Your task to perform on an android device: Go to sound settings Image 0: 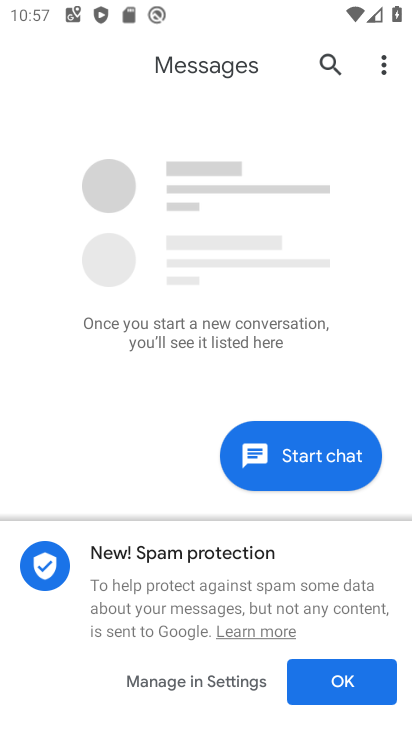
Step 0: click (334, 681)
Your task to perform on an android device: Go to sound settings Image 1: 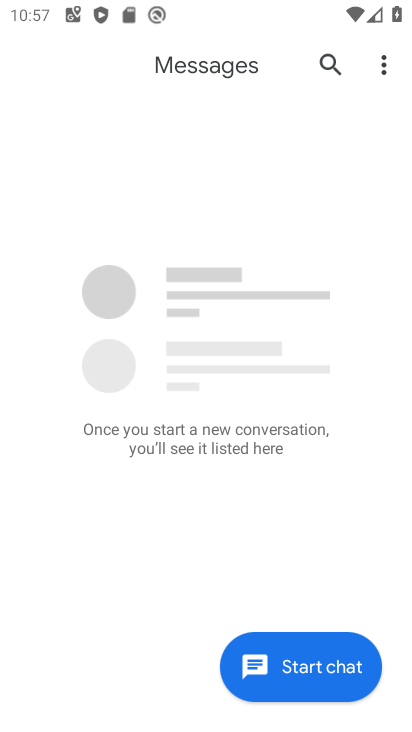
Step 1: click (326, 665)
Your task to perform on an android device: Go to sound settings Image 2: 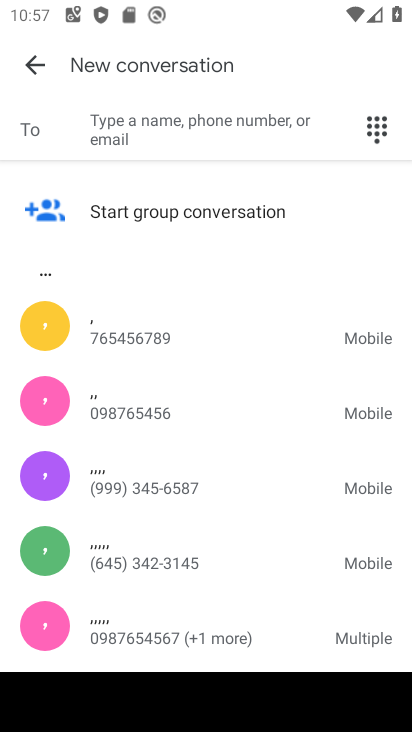
Step 2: click (27, 79)
Your task to perform on an android device: Go to sound settings Image 3: 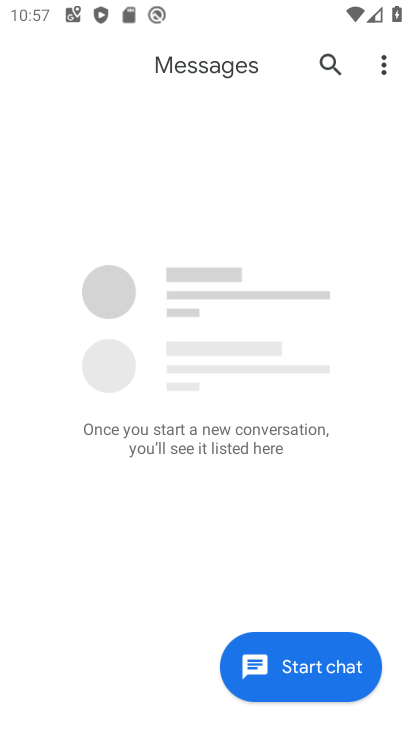
Step 3: click (302, 655)
Your task to perform on an android device: Go to sound settings Image 4: 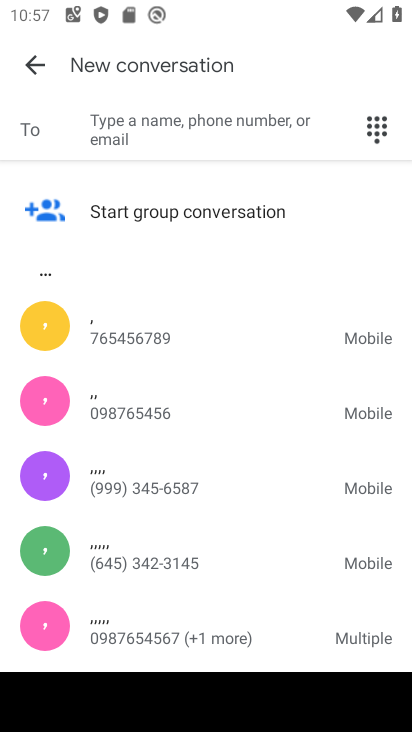
Step 4: click (29, 62)
Your task to perform on an android device: Go to sound settings Image 5: 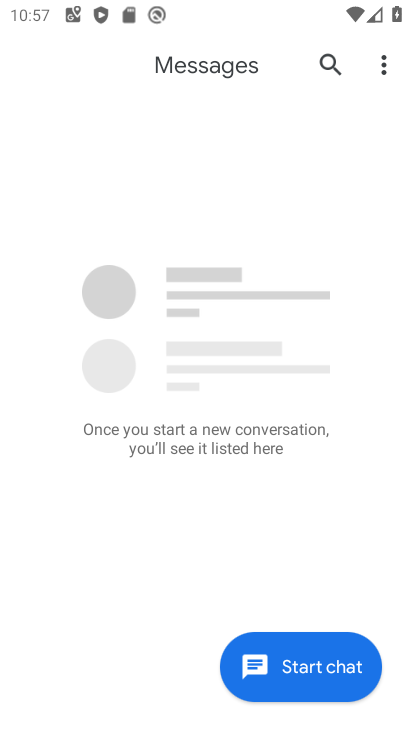
Step 5: press home button
Your task to perform on an android device: Go to sound settings Image 6: 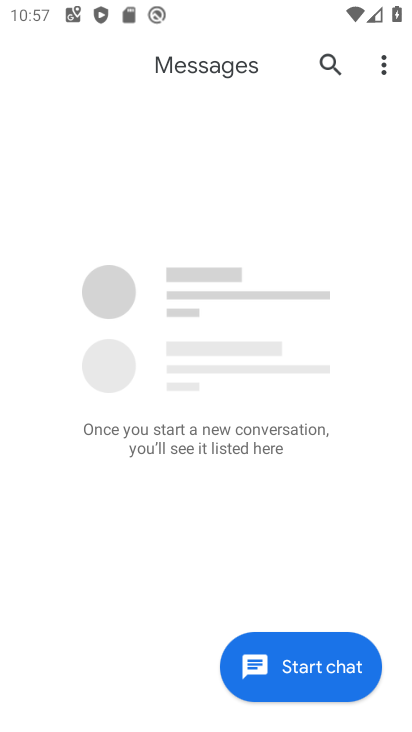
Step 6: press home button
Your task to perform on an android device: Go to sound settings Image 7: 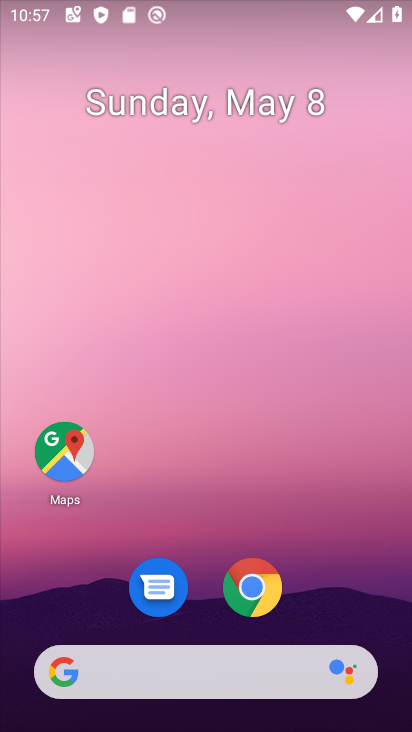
Step 7: drag from (369, 601) to (148, 50)
Your task to perform on an android device: Go to sound settings Image 8: 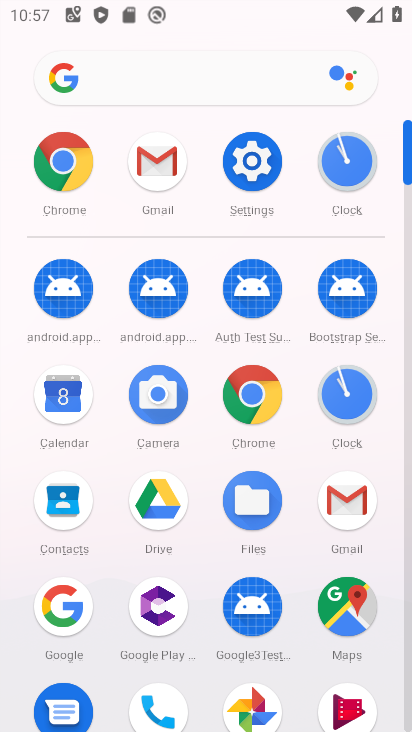
Step 8: click (238, 169)
Your task to perform on an android device: Go to sound settings Image 9: 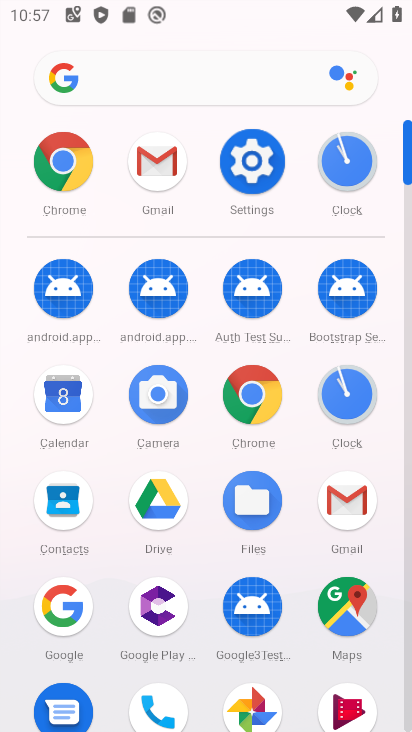
Step 9: click (239, 194)
Your task to perform on an android device: Go to sound settings Image 10: 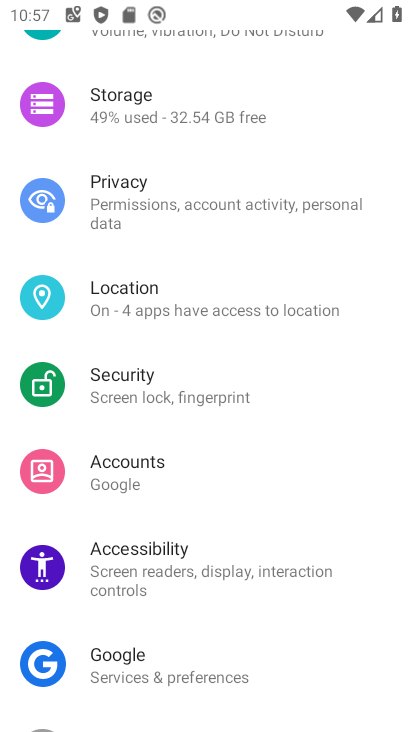
Step 10: click (113, 97)
Your task to perform on an android device: Go to sound settings Image 11: 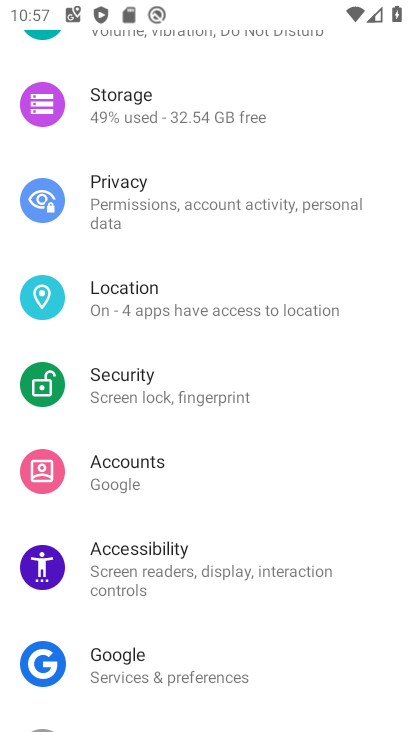
Step 11: drag from (165, 451) to (165, 47)
Your task to perform on an android device: Go to sound settings Image 12: 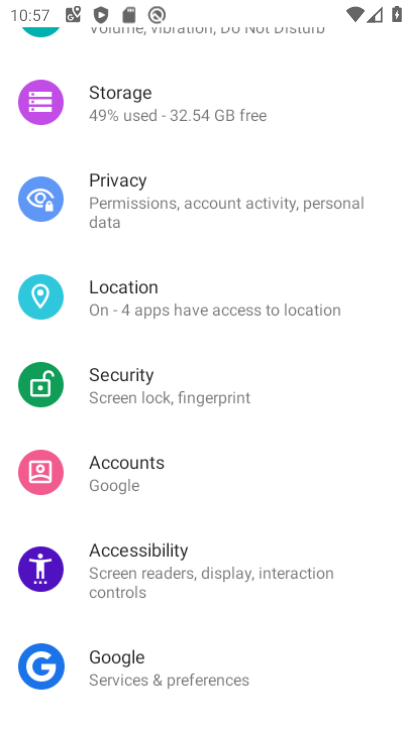
Step 12: drag from (160, 235) to (157, 468)
Your task to perform on an android device: Go to sound settings Image 13: 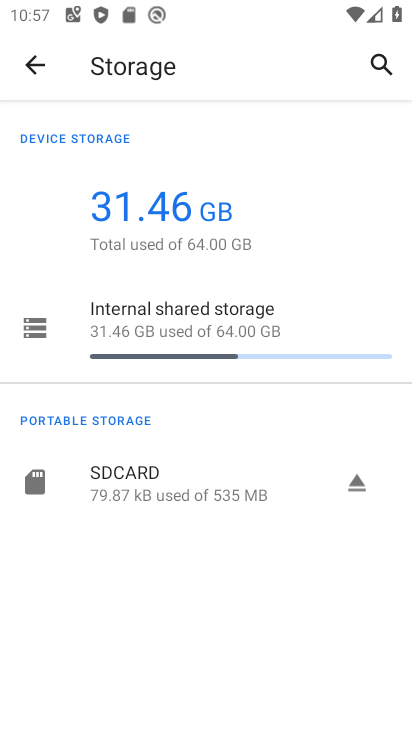
Step 13: drag from (141, 213) to (151, 550)
Your task to perform on an android device: Go to sound settings Image 14: 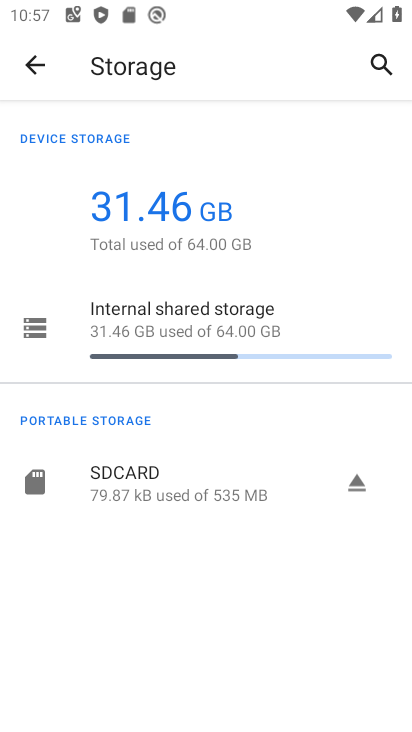
Step 14: click (35, 58)
Your task to perform on an android device: Go to sound settings Image 15: 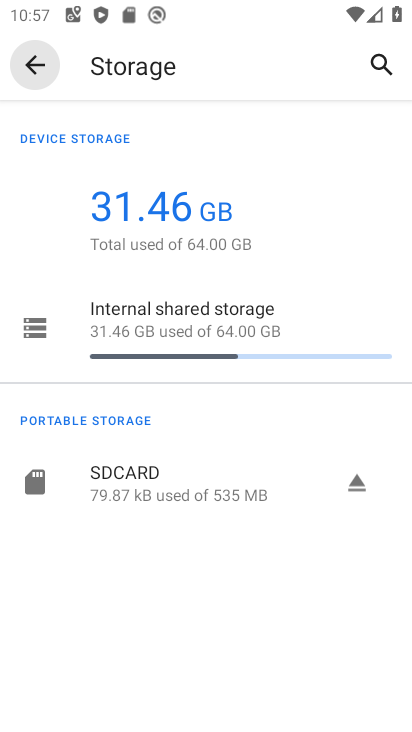
Step 15: click (35, 58)
Your task to perform on an android device: Go to sound settings Image 16: 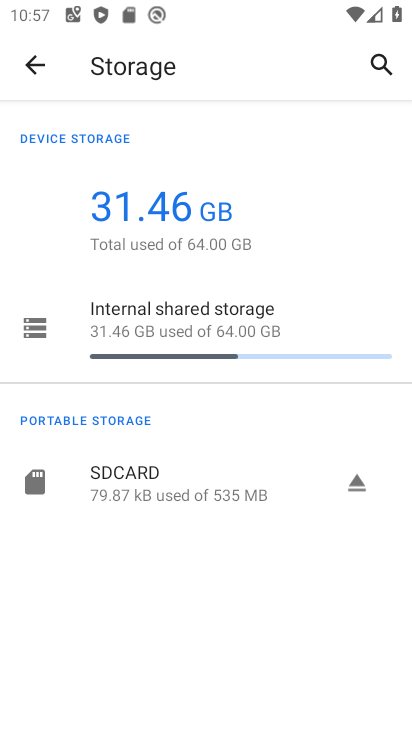
Step 16: click (20, 63)
Your task to perform on an android device: Go to sound settings Image 17: 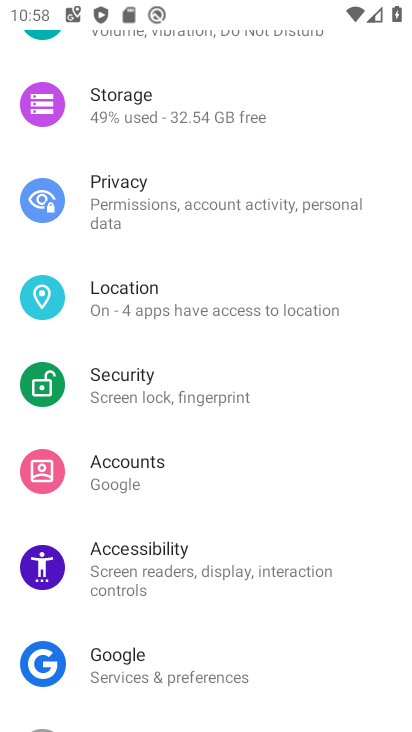
Step 17: drag from (138, 178) to (156, 507)
Your task to perform on an android device: Go to sound settings Image 18: 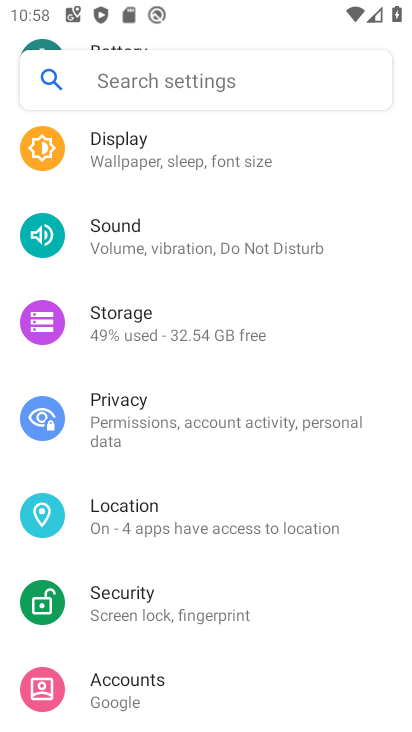
Step 18: drag from (155, 174) to (174, 406)
Your task to perform on an android device: Go to sound settings Image 19: 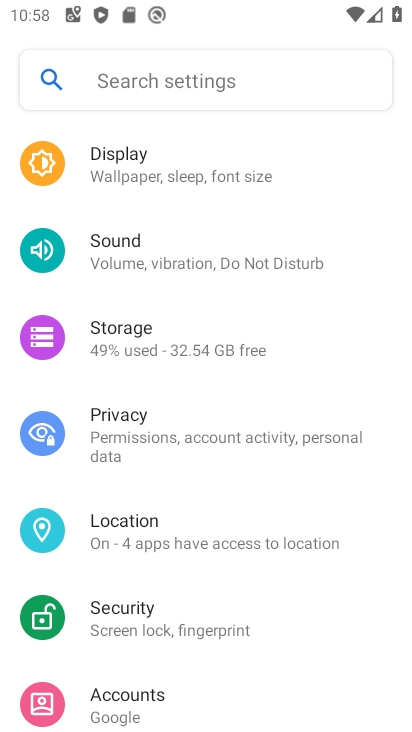
Step 19: click (129, 261)
Your task to perform on an android device: Go to sound settings Image 20: 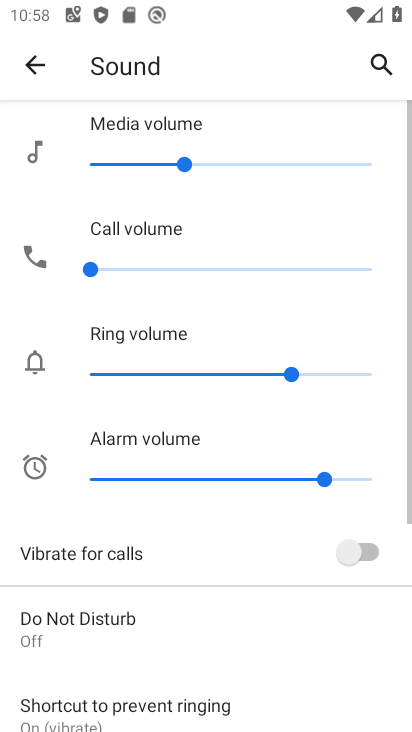
Step 20: task complete